Your task to perform on an android device: turn on bluetooth scan Image 0: 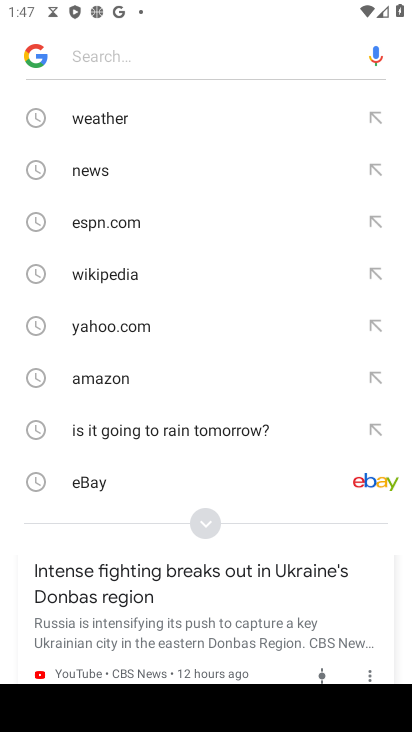
Step 0: press home button
Your task to perform on an android device: turn on bluetooth scan Image 1: 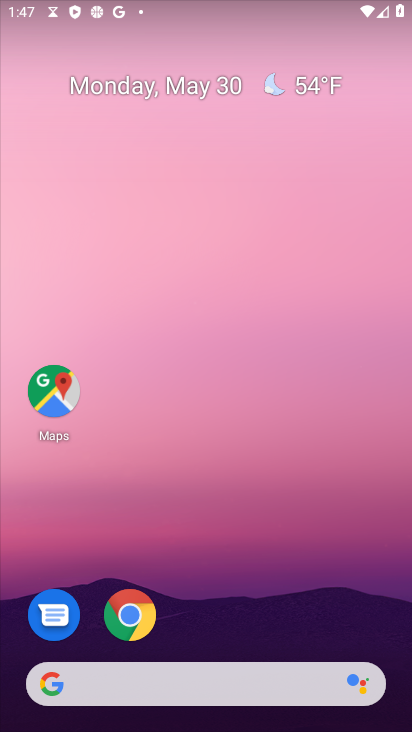
Step 1: drag from (310, 650) to (262, 151)
Your task to perform on an android device: turn on bluetooth scan Image 2: 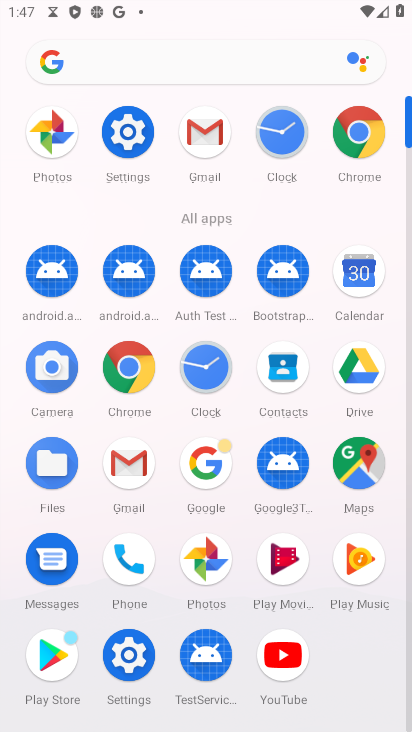
Step 2: click (126, 148)
Your task to perform on an android device: turn on bluetooth scan Image 3: 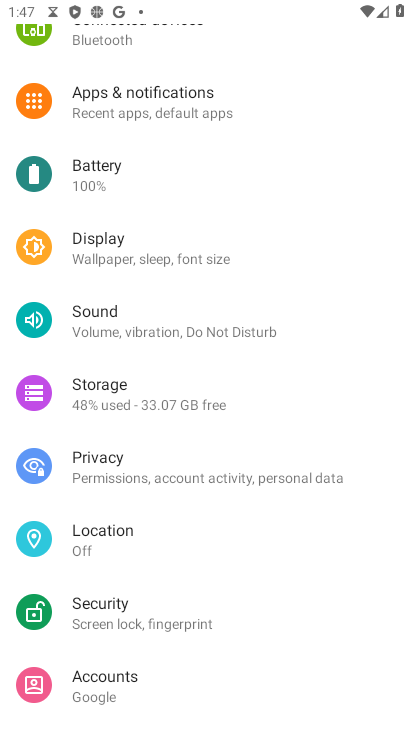
Step 3: click (128, 542)
Your task to perform on an android device: turn on bluetooth scan Image 4: 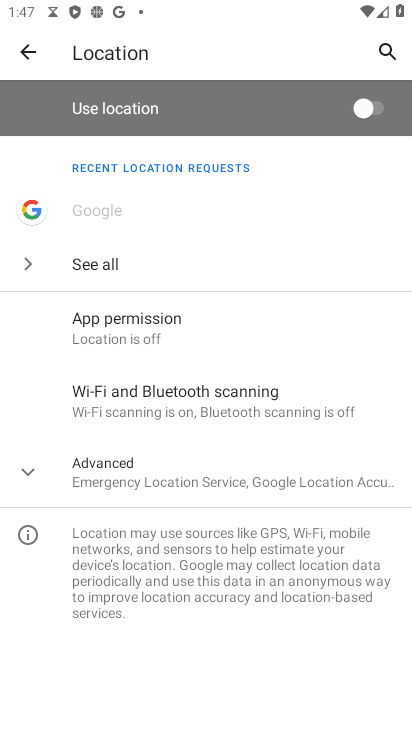
Step 4: click (137, 406)
Your task to perform on an android device: turn on bluetooth scan Image 5: 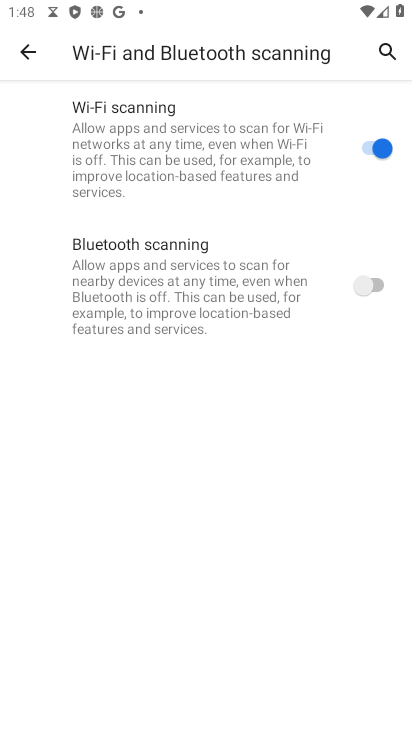
Step 5: click (376, 297)
Your task to perform on an android device: turn on bluetooth scan Image 6: 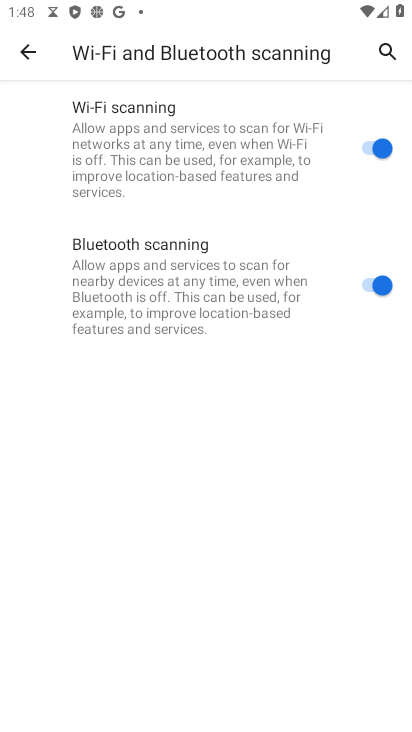
Step 6: task complete